Your task to perform on an android device: Is it going to rain this weekend? Image 0: 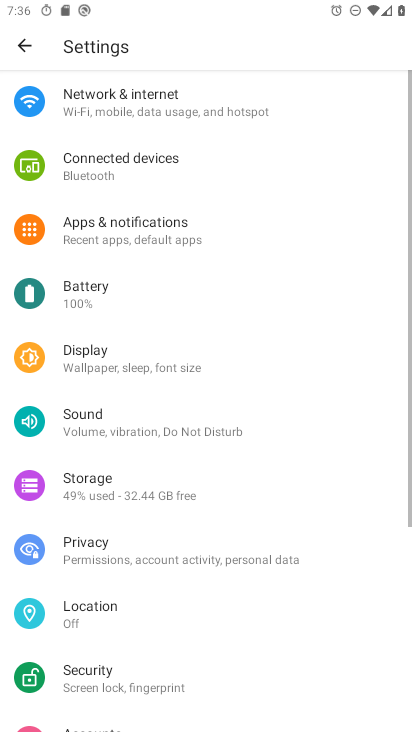
Step 0: press home button
Your task to perform on an android device: Is it going to rain this weekend? Image 1: 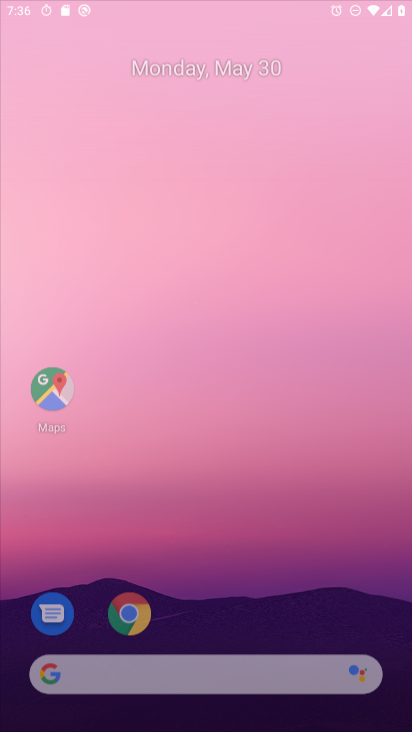
Step 1: drag from (375, 643) to (293, 41)
Your task to perform on an android device: Is it going to rain this weekend? Image 2: 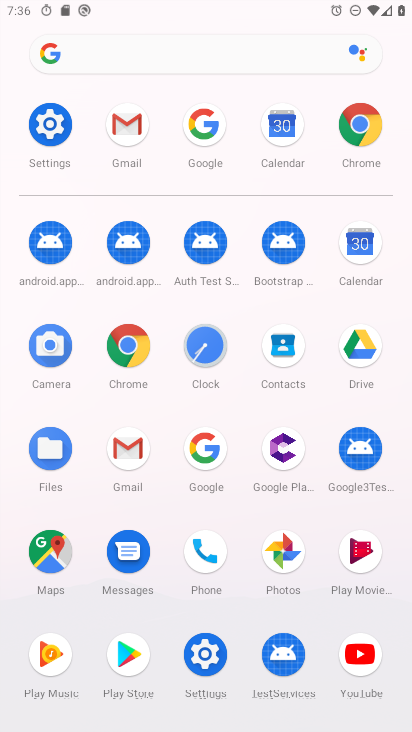
Step 2: click (211, 128)
Your task to perform on an android device: Is it going to rain this weekend? Image 3: 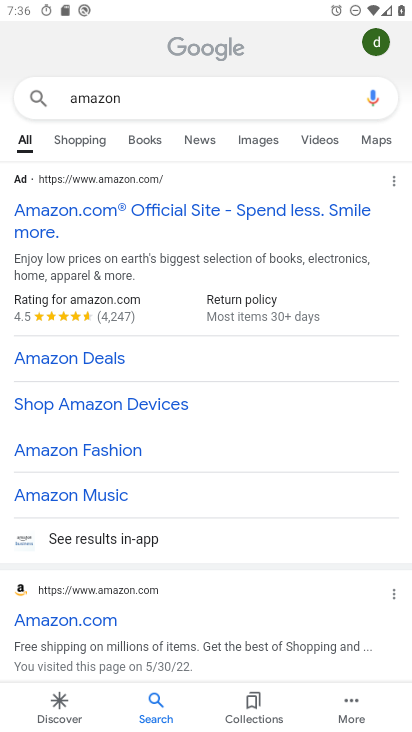
Step 3: press back button
Your task to perform on an android device: Is it going to rain this weekend? Image 4: 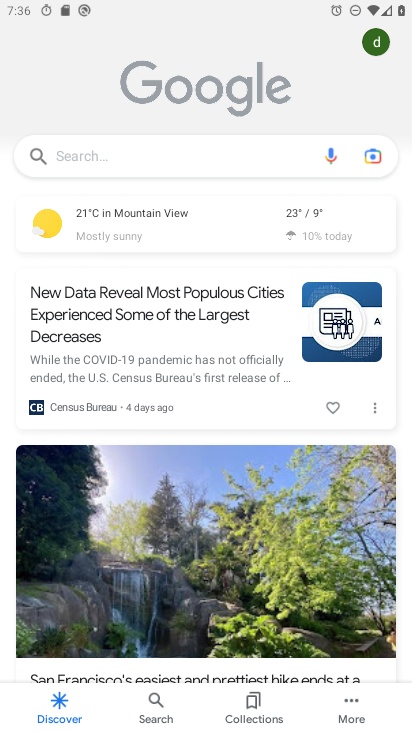
Step 4: click (103, 159)
Your task to perform on an android device: Is it going to rain this weekend? Image 5: 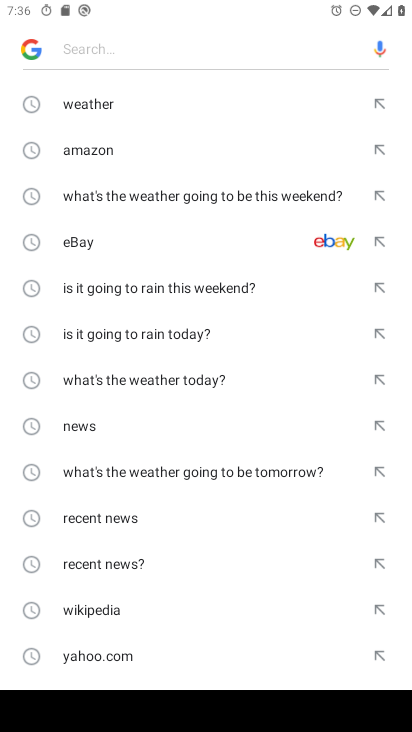
Step 5: click (106, 293)
Your task to perform on an android device: Is it going to rain this weekend? Image 6: 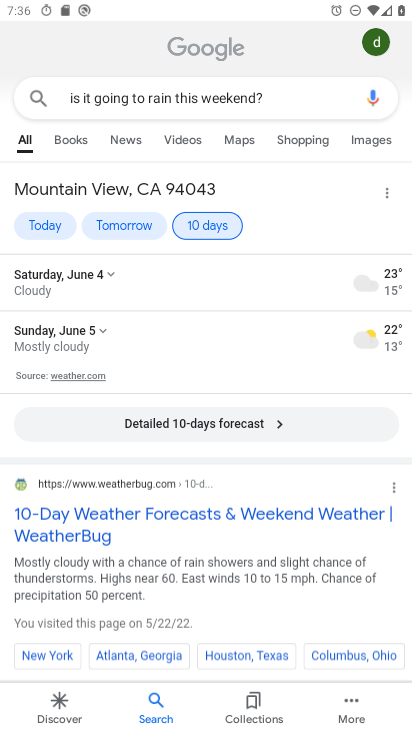
Step 6: task complete